Your task to perform on an android device: Open notification settings Image 0: 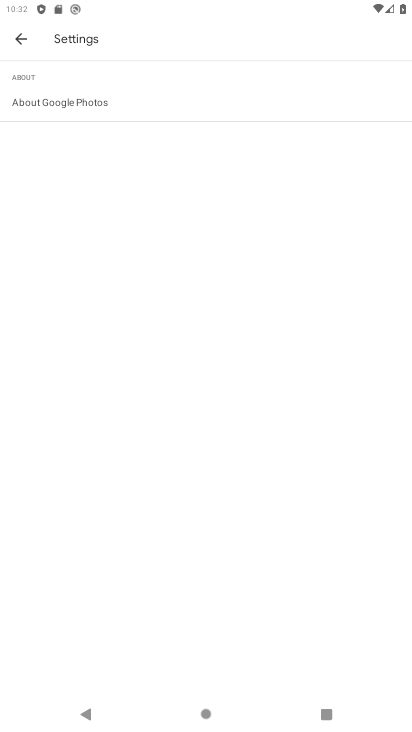
Step 0: press home button
Your task to perform on an android device: Open notification settings Image 1: 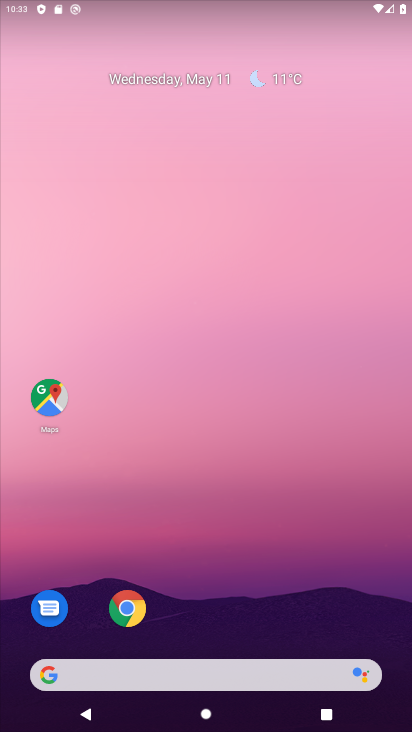
Step 1: drag from (196, 607) to (238, 316)
Your task to perform on an android device: Open notification settings Image 2: 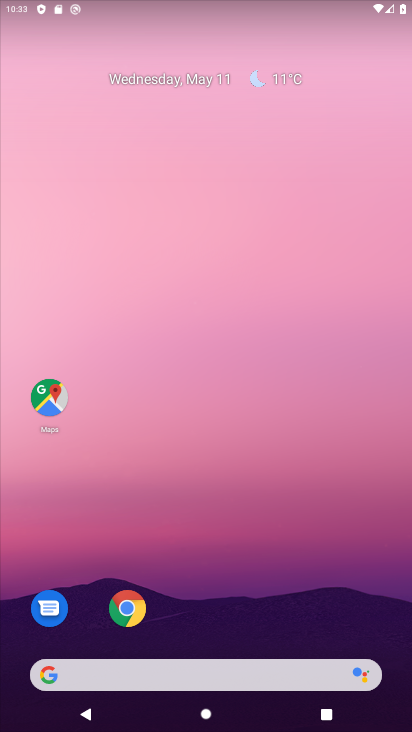
Step 2: drag from (143, 635) to (238, 226)
Your task to perform on an android device: Open notification settings Image 3: 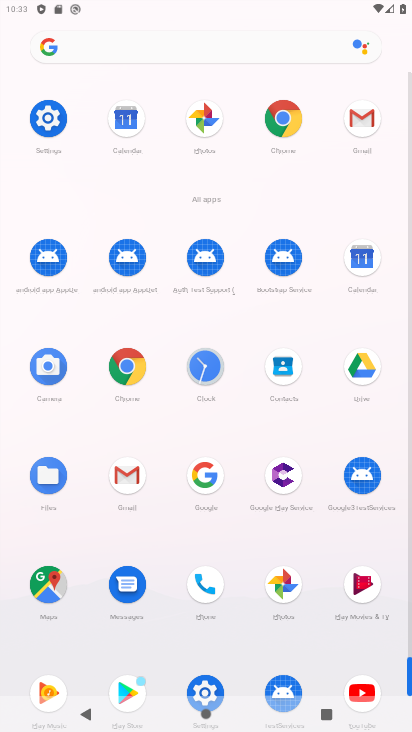
Step 3: click (201, 687)
Your task to perform on an android device: Open notification settings Image 4: 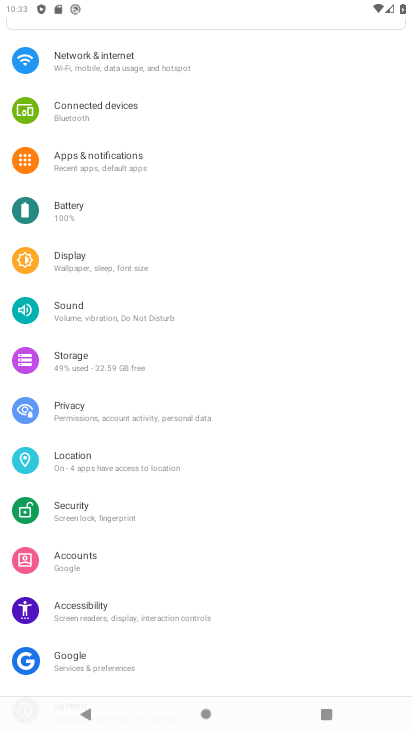
Step 4: click (124, 166)
Your task to perform on an android device: Open notification settings Image 5: 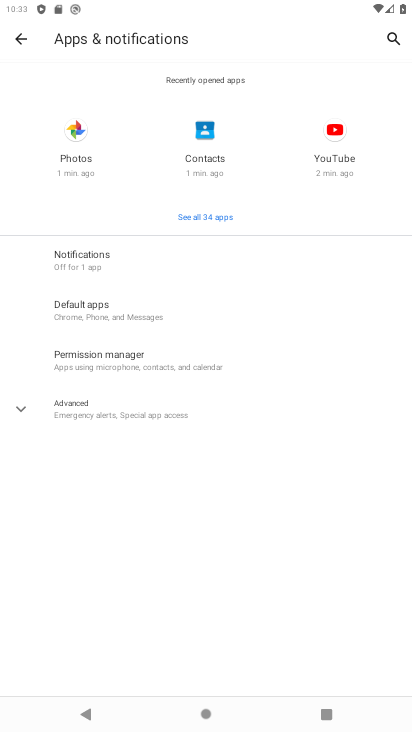
Step 5: task complete